Your task to perform on an android device: Open network settings Image 0: 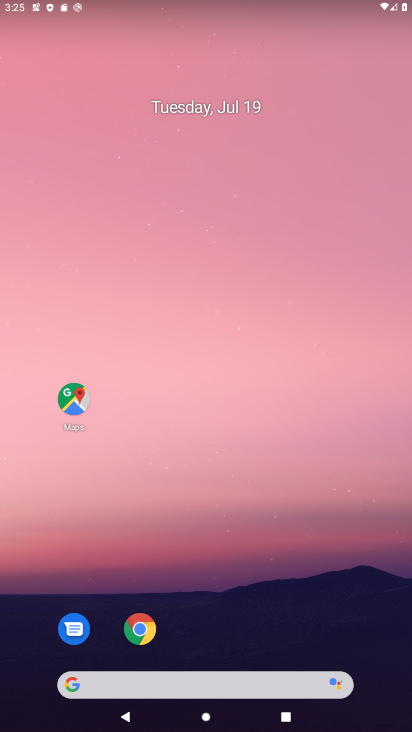
Step 0: drag from (147, 661) to (245, 234)
Your task to perform on an android device: Open network settings Image 1: 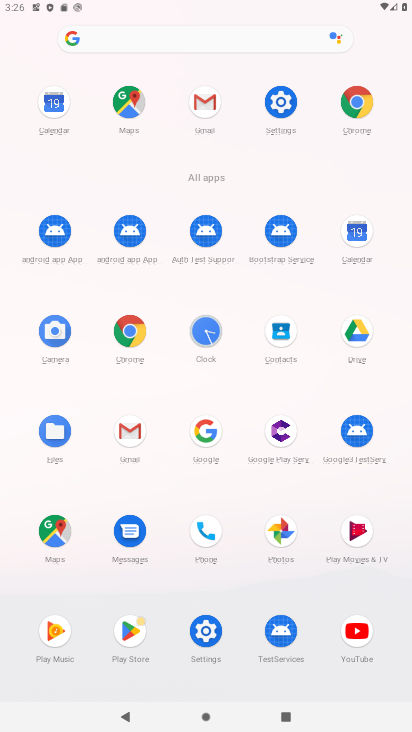
Step 1: click (277, 97)
Your task to perform on an android device: Open network settings Image 2: 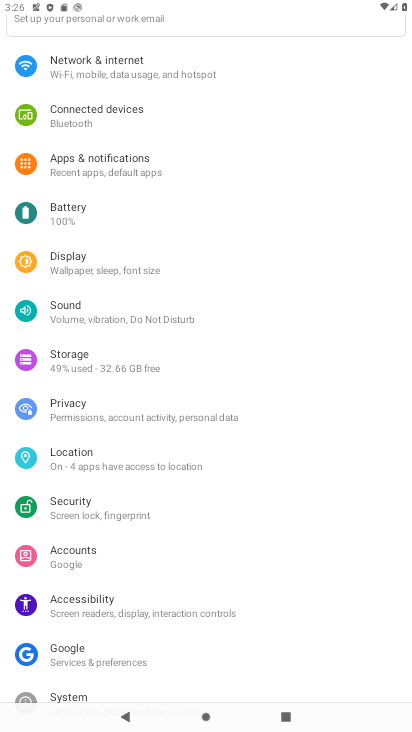
Step 2: click (86, 64)
Your task to perform on an android device: Open network settings Image 3: 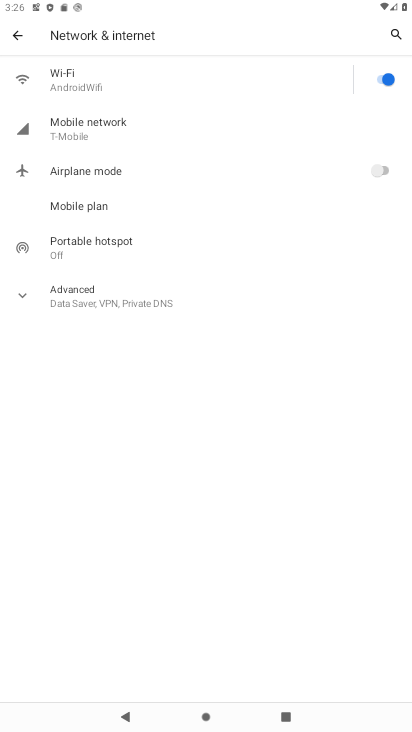
Step 3: click (100, 294)
Your task to perform on an android device: Open network settings Image 4: 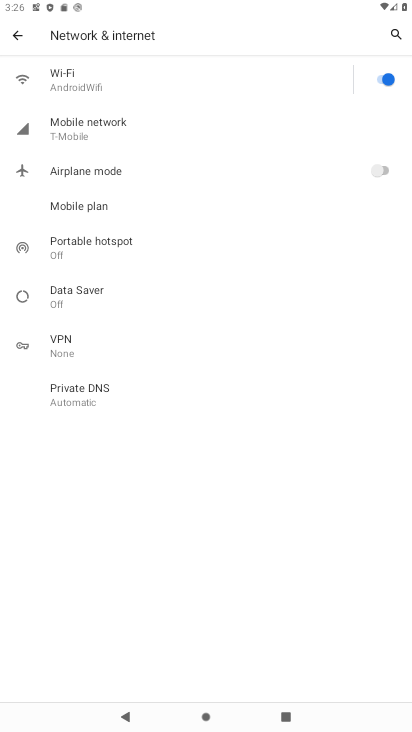
Step 4: task complete